Your task to perform on an android device: Open Google Image 0: 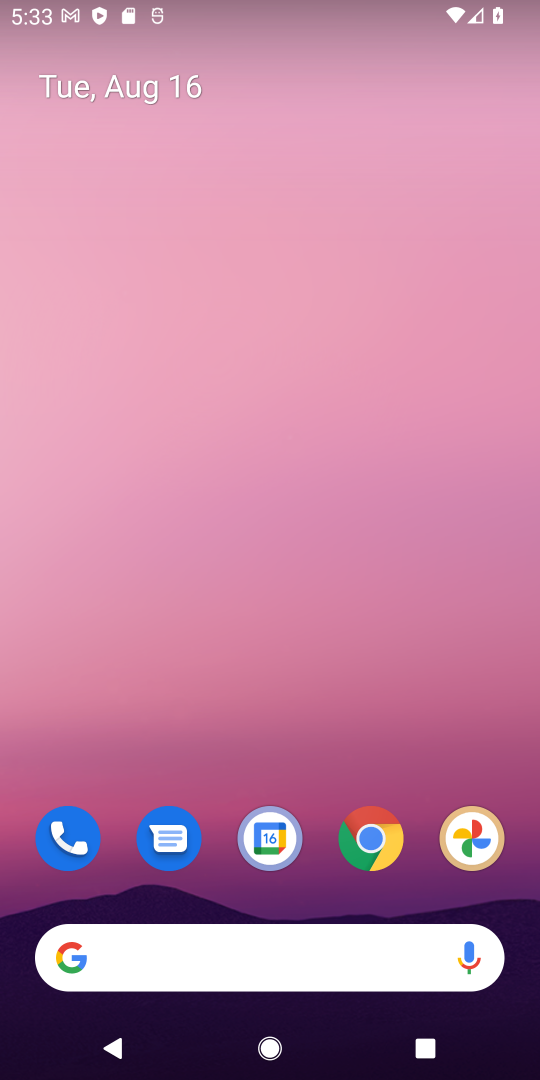
Step 0: drag from (279, 859) to (355, 55)
Your task to perform on an android device: Open Google Image 1: 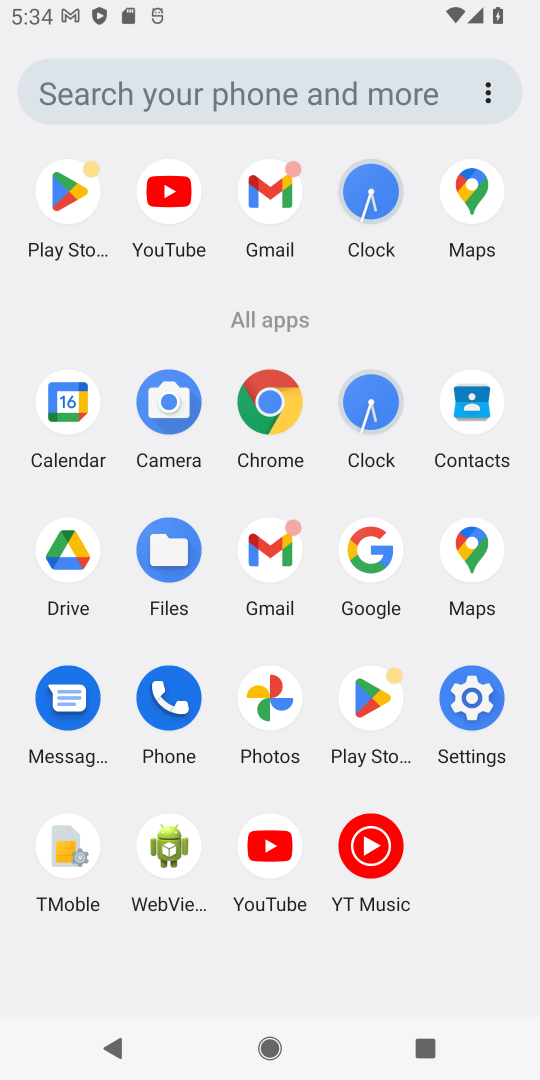
Step 1: click (364, 553)
Your task to perform on an android device: Open Google Image 2: 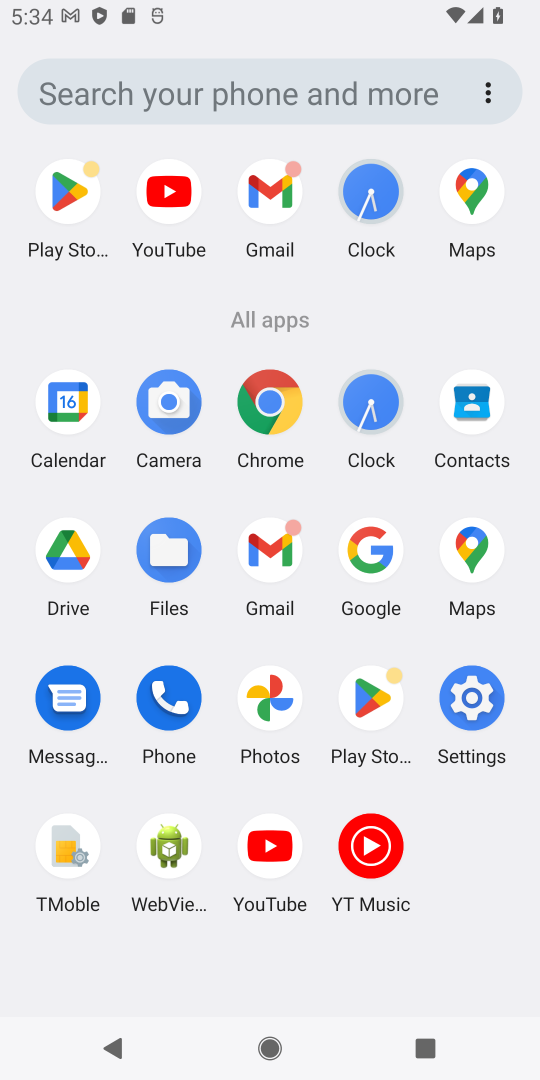
Step 2: click (364, 553)
Your task to perform on an android device: Open Google Image 3: 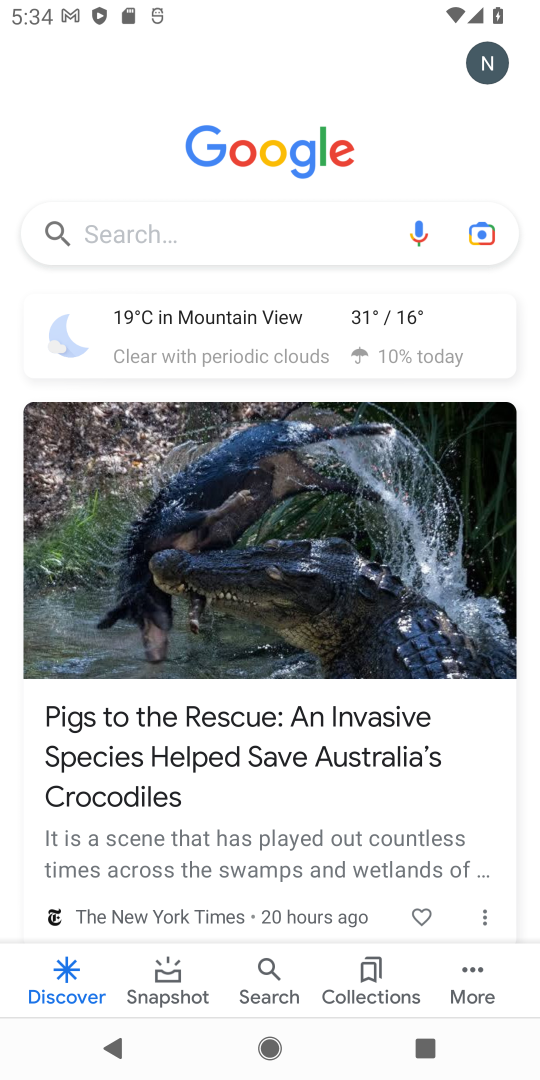
Step 3: task complete